Your task to perform on an android device: turn off improve location accuracy Image 0: 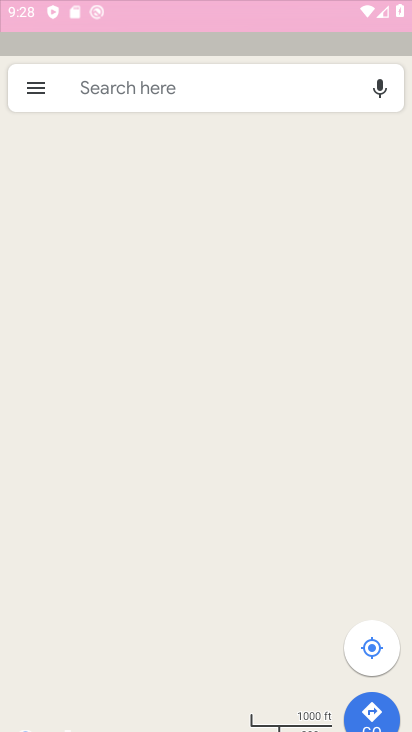
Step 0: click (142, 625)
Your task to perform on an android device: turn off improve location accuracy Image 1: 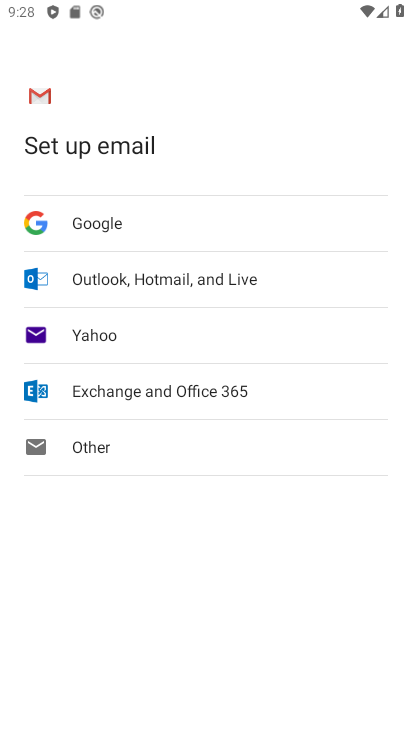
Step 1: press home button
Your task to perform on an android device: turn off improve location accuracy Image 2: 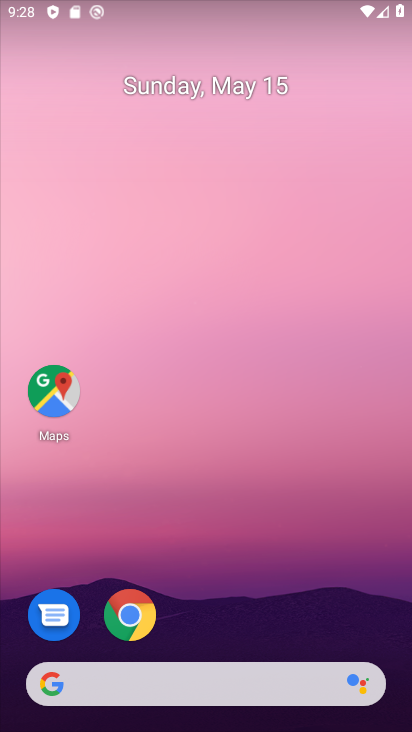
Step 2: drag from (156, 673) to (290, 157)
Your task to perform on an android device: turn off improve location accuracy Image 3: 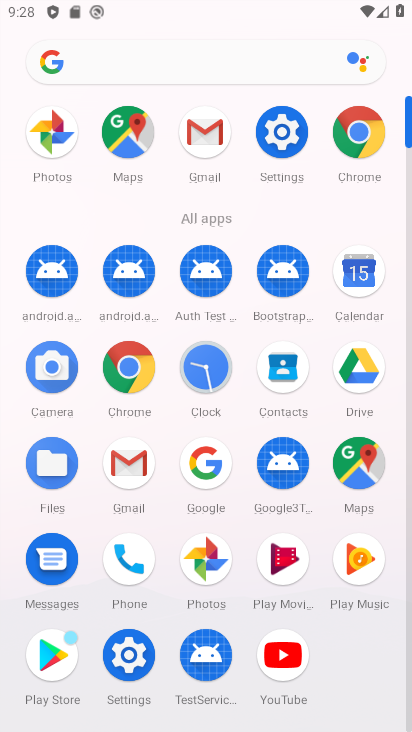
Step 3: click (124, 664)
Your task to perform on an android device: turn off improve location accuracy Image 4: 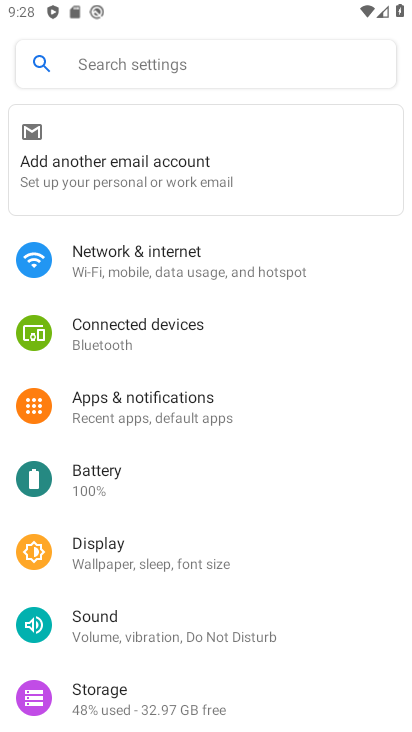
Step 4: drag from (132, 663) to (287, 350)
Your task to perform on an android device: turn off improve location accuracy Image 5: 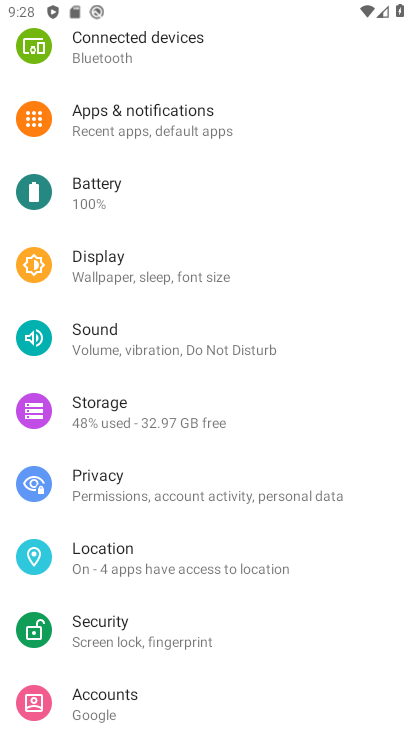
Step 5: click (110, 555)
Your task to perform on an android device: turn off improve location accuracy Image 6: 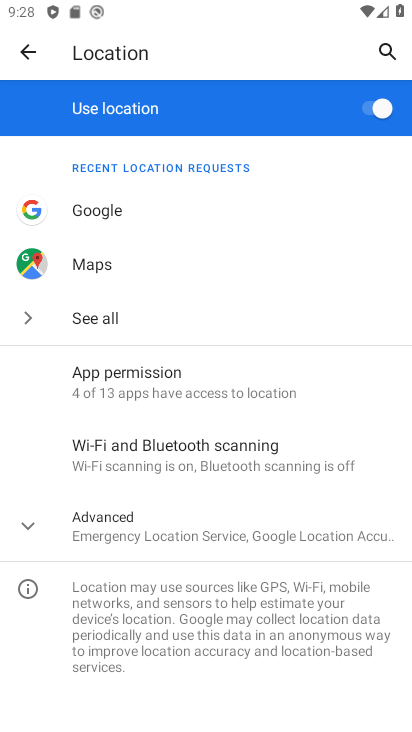
Step 6: click (156, 524)
Your task to perform on an android device: turn off improve location accuracy Image 7: 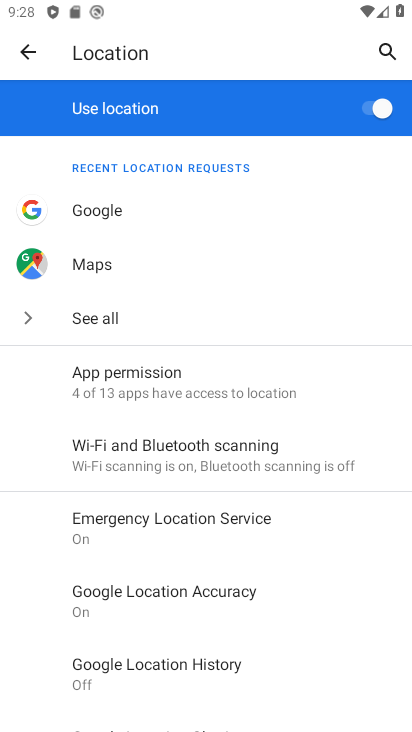
Step 7: drag from (177, 627) to (240, 437)
Your task to perform on an android device: turn off improve location accuracy Image 8: 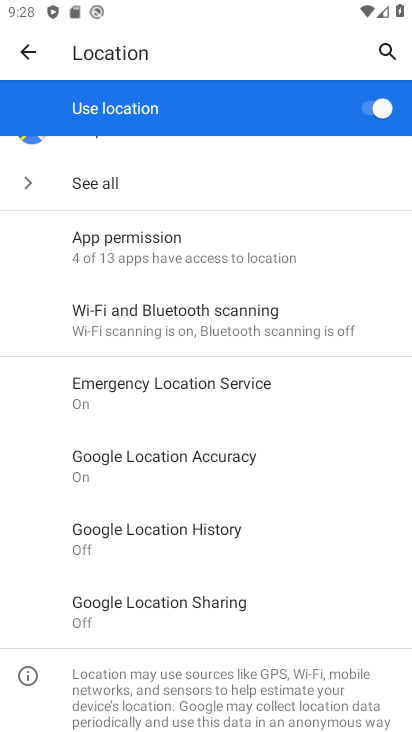
Step 8: click (206, 472)
Your task to perform on an android device: turn off improve location accuracy Image 9: 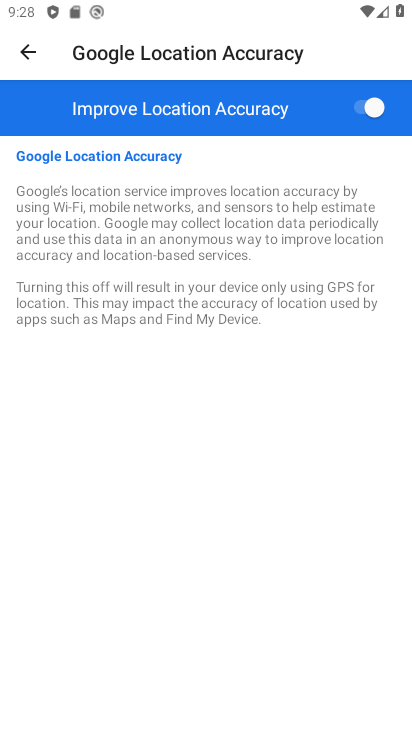
Step 9: click (360, 106)
Your task to perform on an android device: turn off improve location accuracy Image 10: 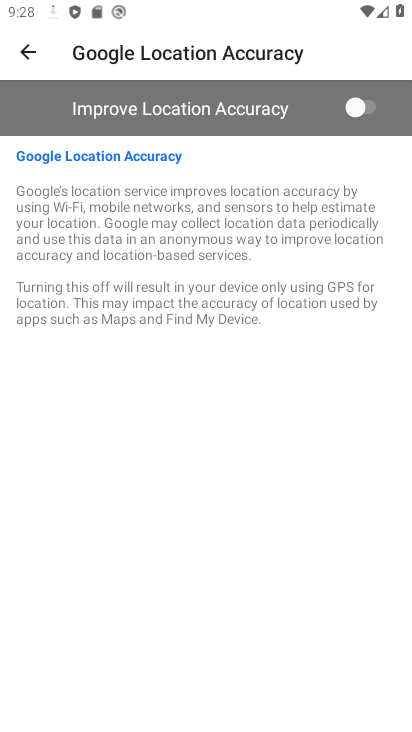
Step 10: task complete